Your task to perform on an android device: open the mobile data screen to see how much data has been used Image 0: 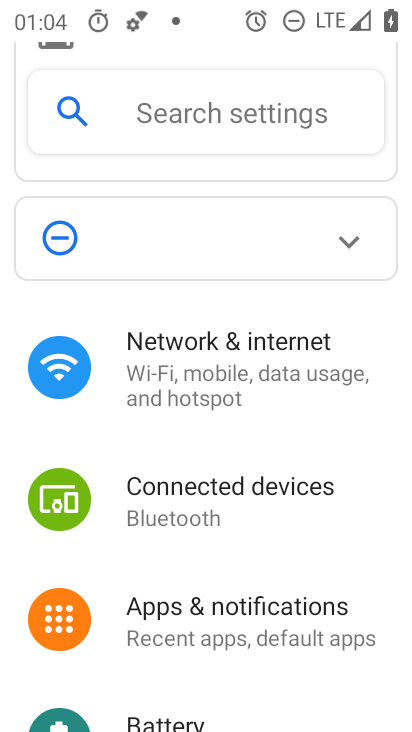
Step 0: press home button
Your task to perform on an android device: open the mobile data screen to see how much data has been used Image 1: 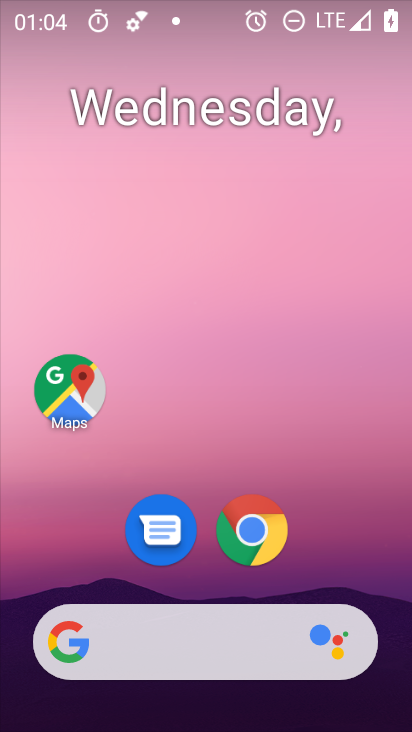
Step 1: drag from (301, 655) to (230, 73)
Your task to perform on an android device: open the mobile data screen to see how much data has been used Image 2: 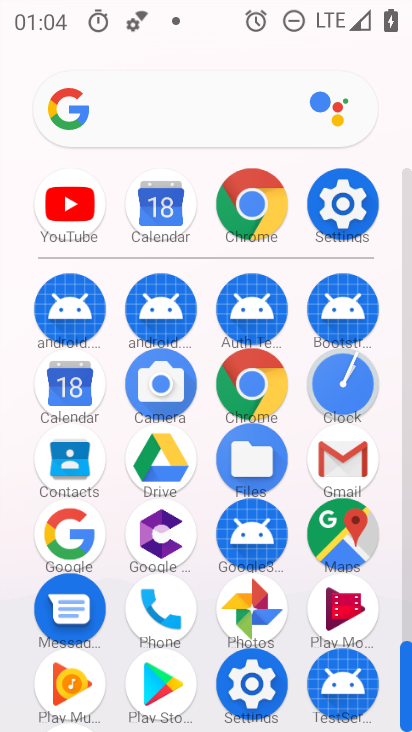
Step 2: click (350, 208)
Your task to perform on an android device: open the mobile data screen to see how much data has been used Image 3: 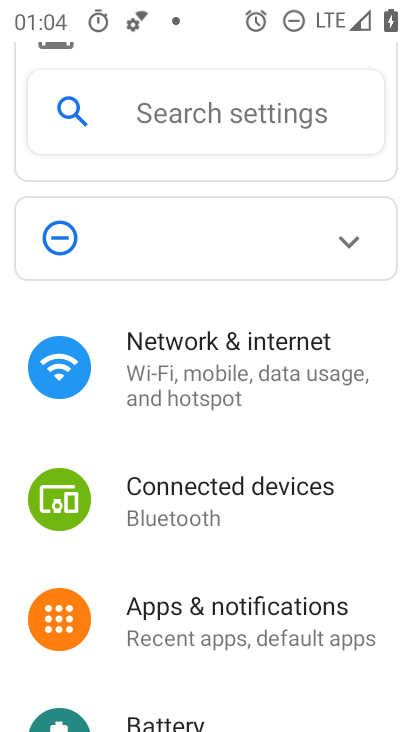
Step 3: click (289, 362)
Your task to perform on an android device: open the mobile data screen to see how much data has been used Image 4: 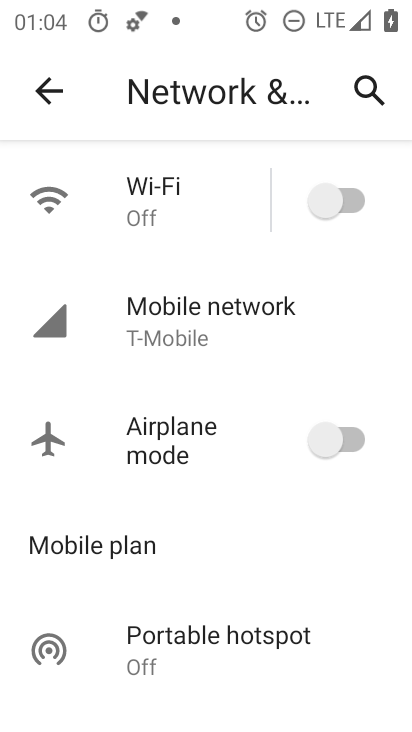
Step 4: click (231, 334)
Your task to perform on an android device: open the mobile data screen to see how much data has been used Image 5: 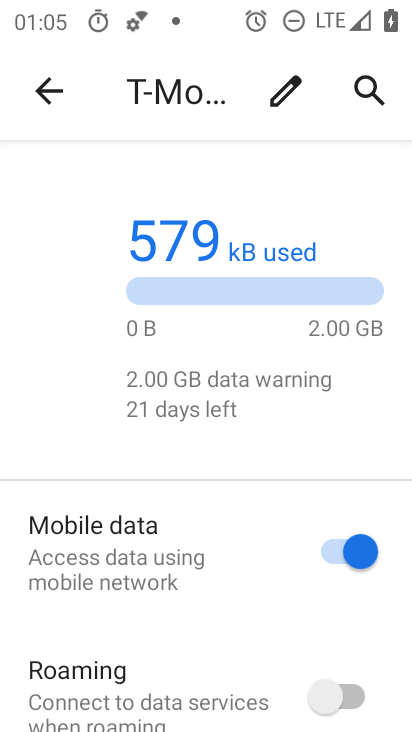
Step 5: press home button
Your task to perform on an android device: open the mobile data screen to see how much data has been used Image 6: 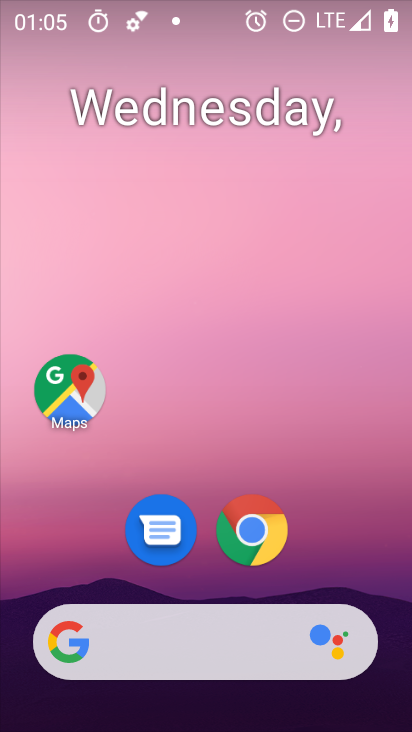
Step 6: drag from (236, 643) to (252, 70)
Your task to perform on an android device: open the mobile data screen to see how much data has been used Image 7: 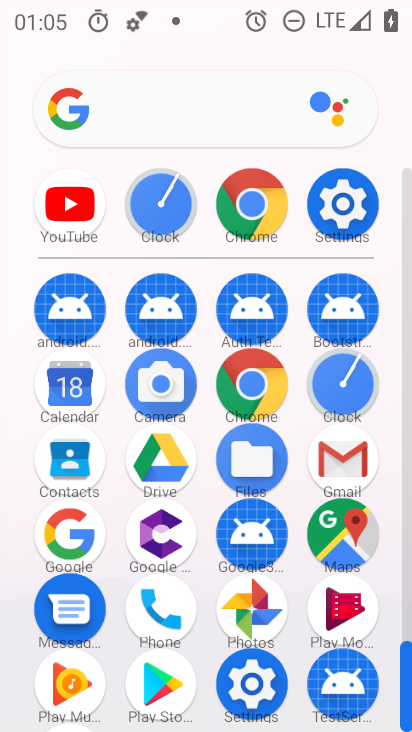
Step 7: click (358, 197)
Your task to perform on an android device: open the mobile data screen to see how much data has been used Image 8: 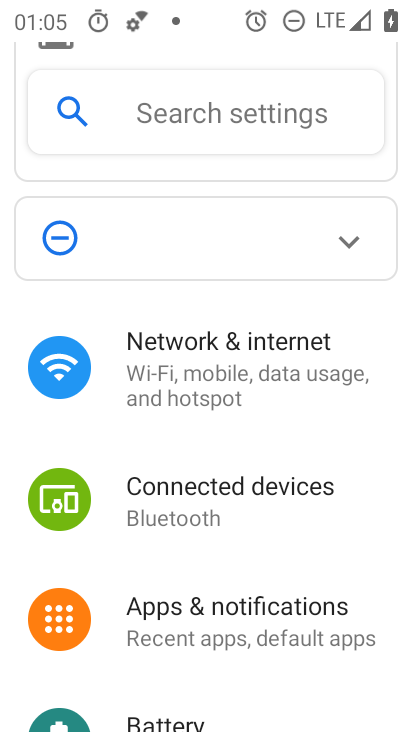
Step 8: click (328, 374)
Your task to perform on an android device: open the mobile data screen to see how much data has been used Image 9: 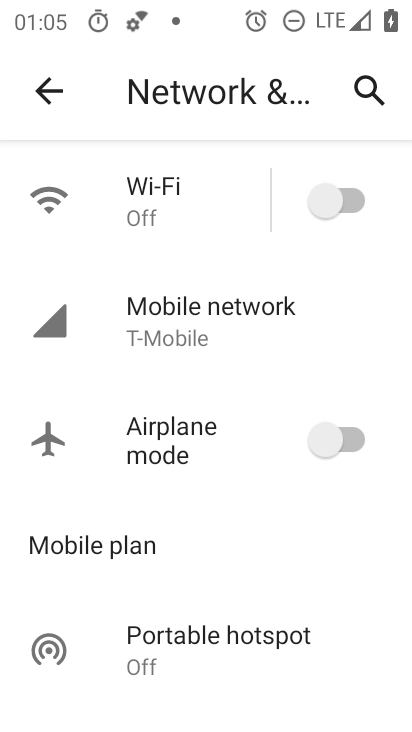
Step 9: click (244, 336)
Your task to perform on an android device: open the mobile data screen to see how much data has been used Image 10: 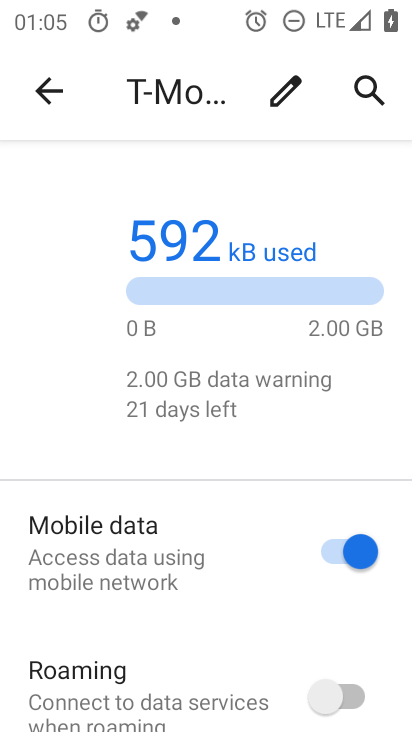
Step 10: task complete